Your task to perform on an android device: When is my next meeting? Image 0: 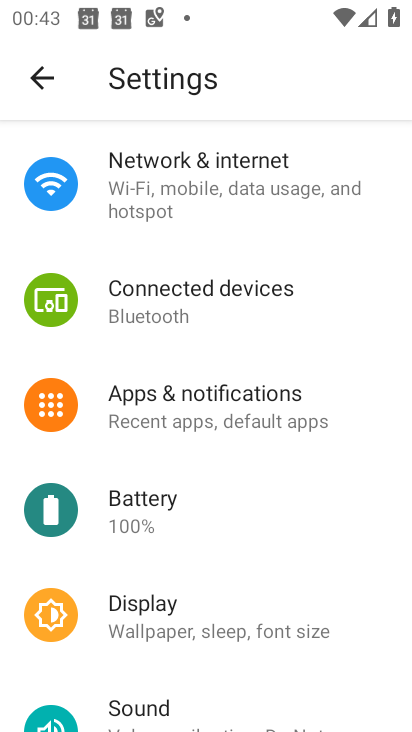
Step 0: press home button
Your task to perform on an android device: When is my next meeting? Image 1: 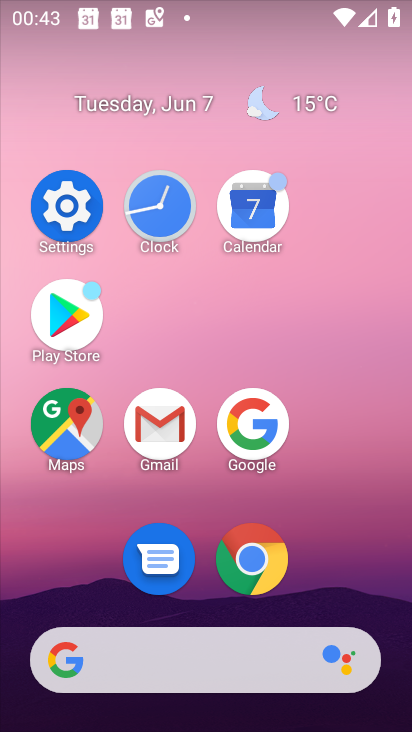
Step 1: click (244, 215)
Your task to perform on an android device: When is my next meeting? Image 2: 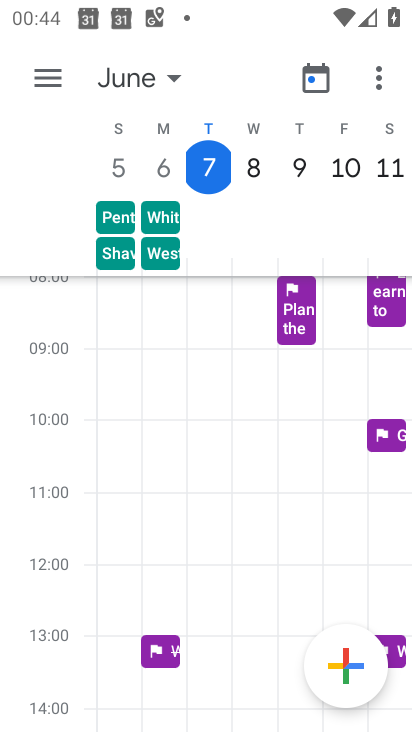
Step 2: click (252, 177)
Your task to perform on an android device: When is my next meeting? Image 3: 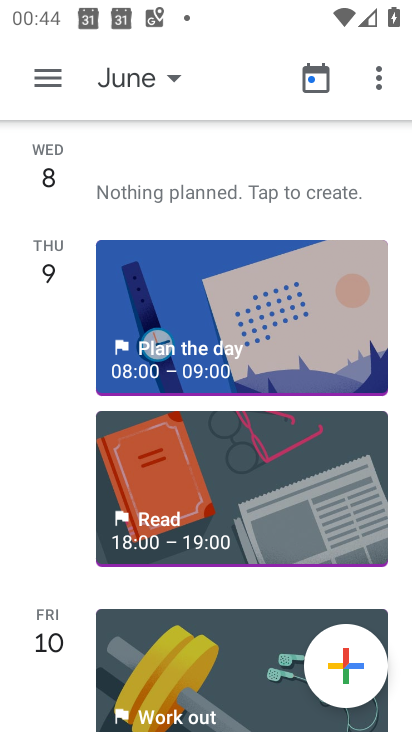
Step 3: task complete